Your task to perform on an android device: Open Google Chrome and click the shortcut for Amazon.com Image 0: 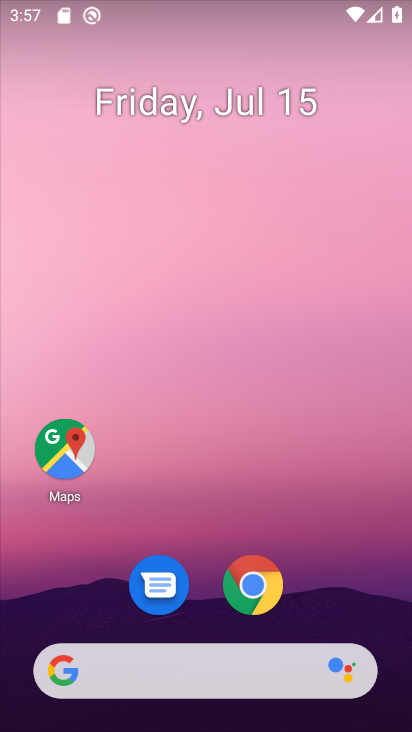
Step 0: click (257, 584)
Your task to perform on an android device: Open Google Chrome and click the shortcut for Amazon.com Image 1: 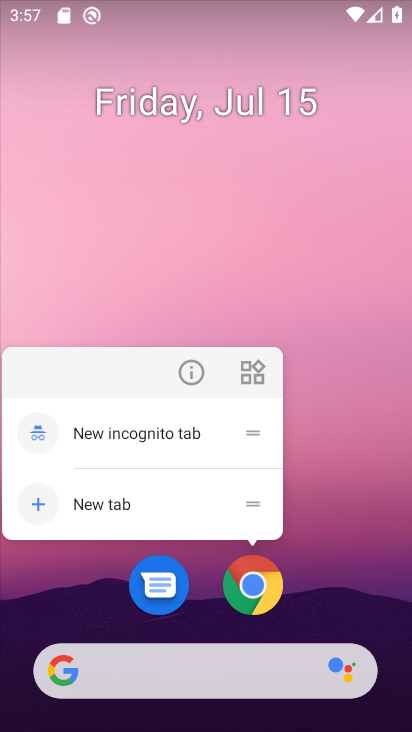
Step 1: click (257, 584)
Your task to perform on an android device: Open Google Chrome and click the shortcut for Amazon.com Image 2: 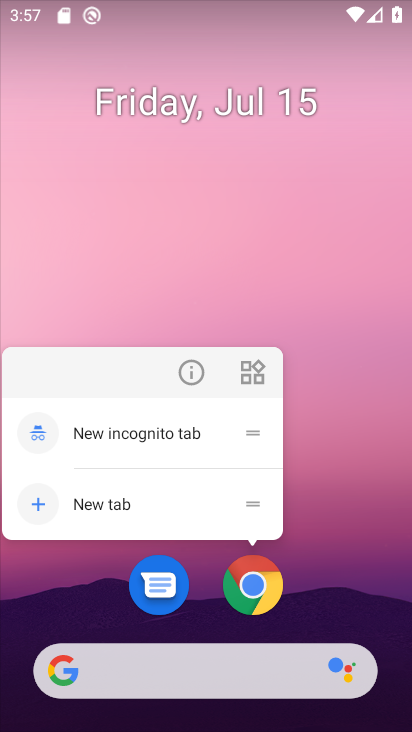
Step 2: click (257, 584)
Your task to perform on an android device: Open Google Chrome and click the shortcut for Amazon.com Image 3: 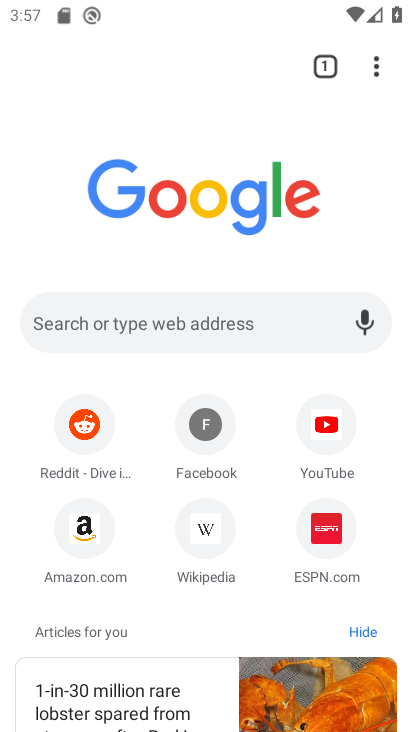
Step 3: click (376, 60)
Your task to perform on an android device: Open Google Chrome and click the shortcut for Amazon.com Image 4: 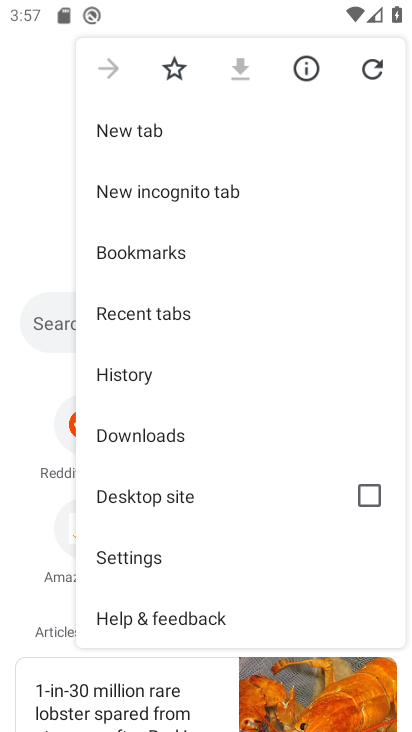
Step 4: click (139, 136)
Your task to perform on an android device: Open Google Chrome and click the shortcut for Amazon.com Image 5: 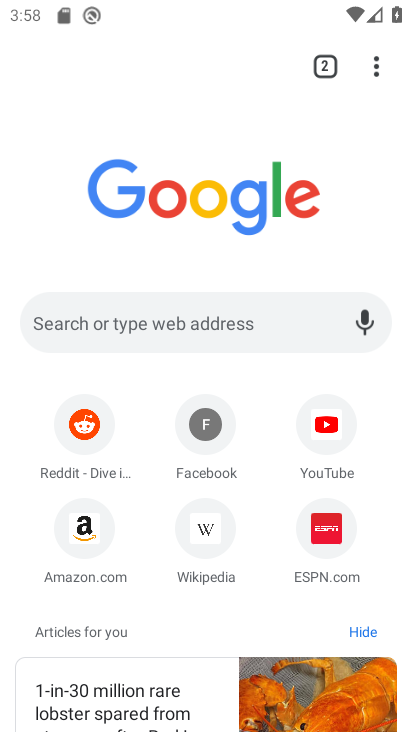
Step 5: click (82, 529)
Your task to perform on an android device: Open Google Chrome and click the shortcut for Amazon.com Image 6: 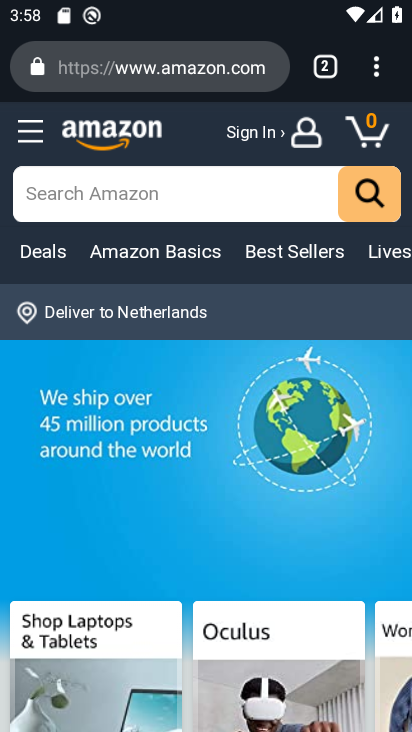
Step 6: task complete